Your task to perform on an android device: Clear the cart on newegg. Add "asus zenbook" to the cart on newegg, then select checkout. Image 0: 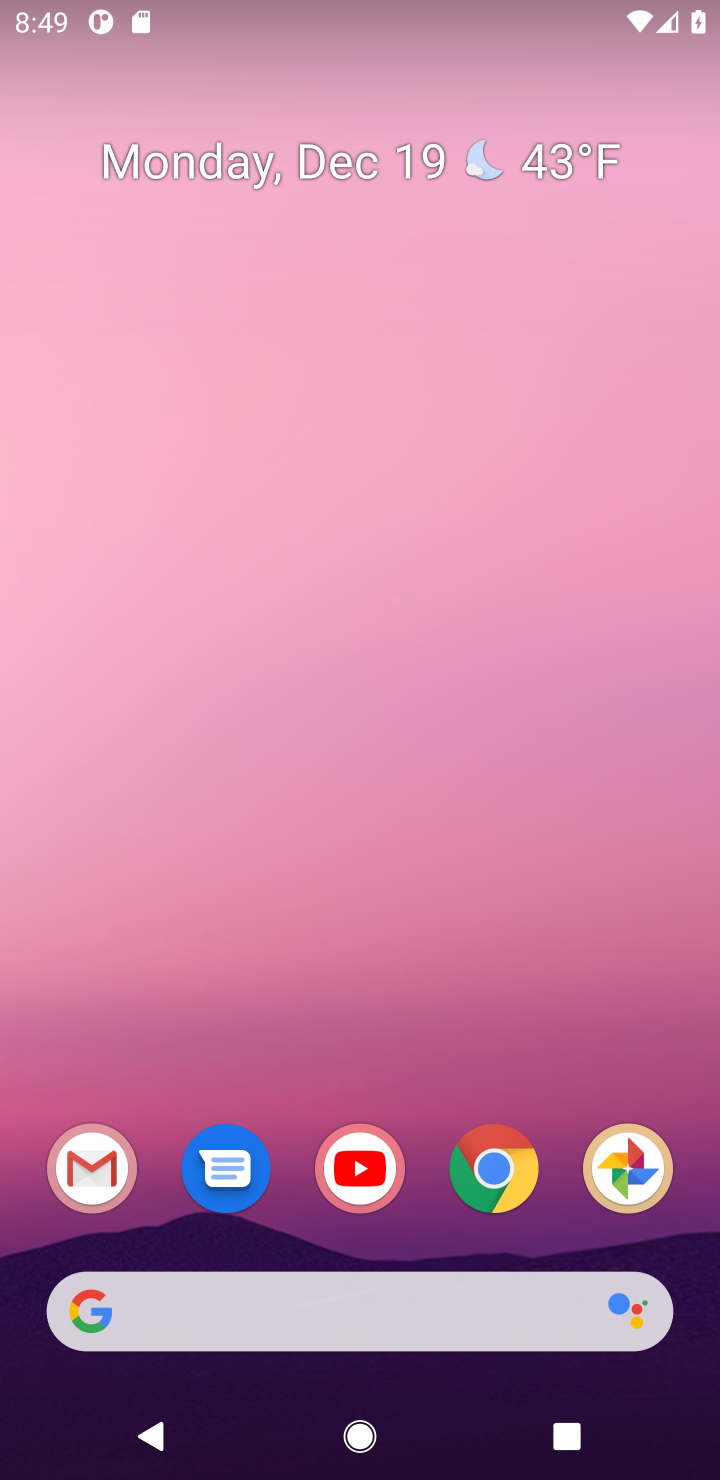
Step 0: click (504, 1185)
Your task to perform on an android device: Clear the cart on newegg. Add "asus zenbook" to the cart on newegg, then select checkout. Image 1: 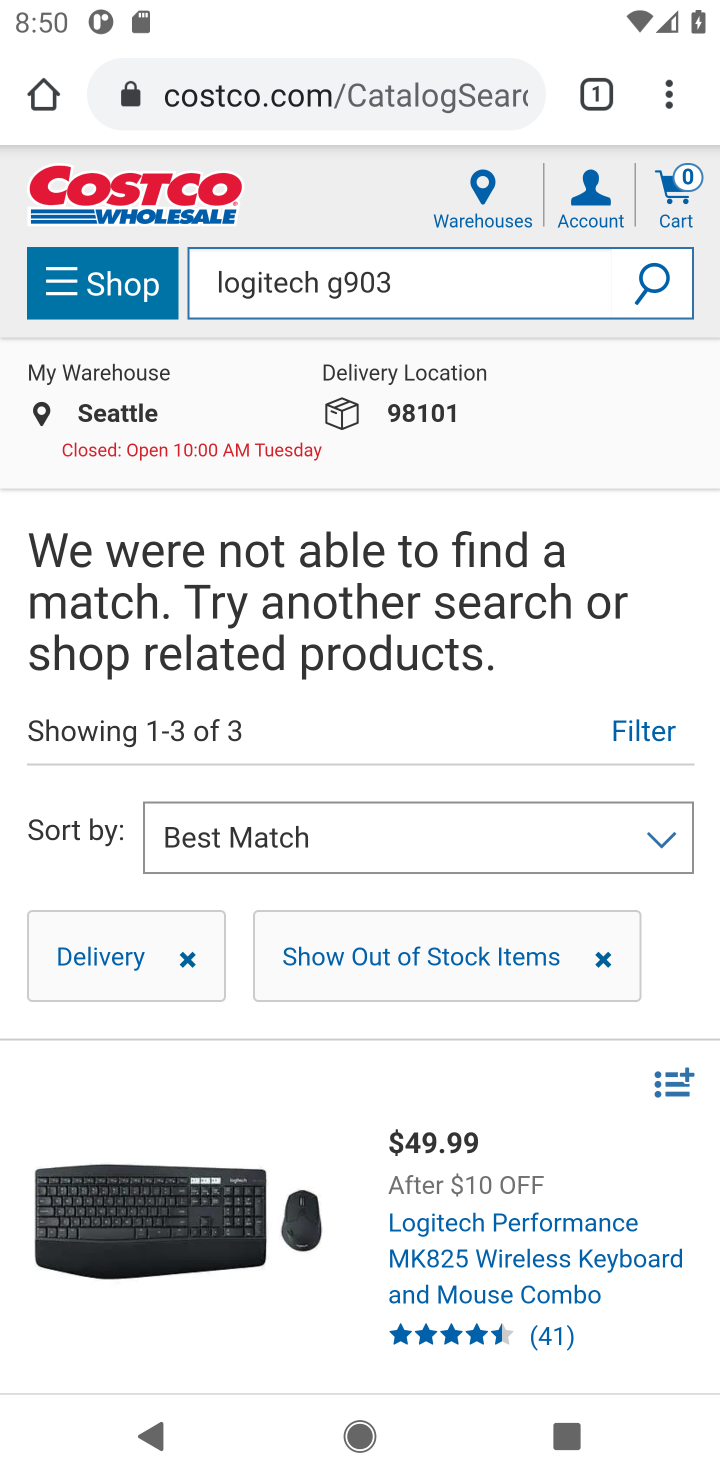
Step 1: click (316, 101)
Your task to perform on an android device: Clear the cart on newegg. Add "asus zenbook" to the cart on newegg, then select checkout. Image 2: 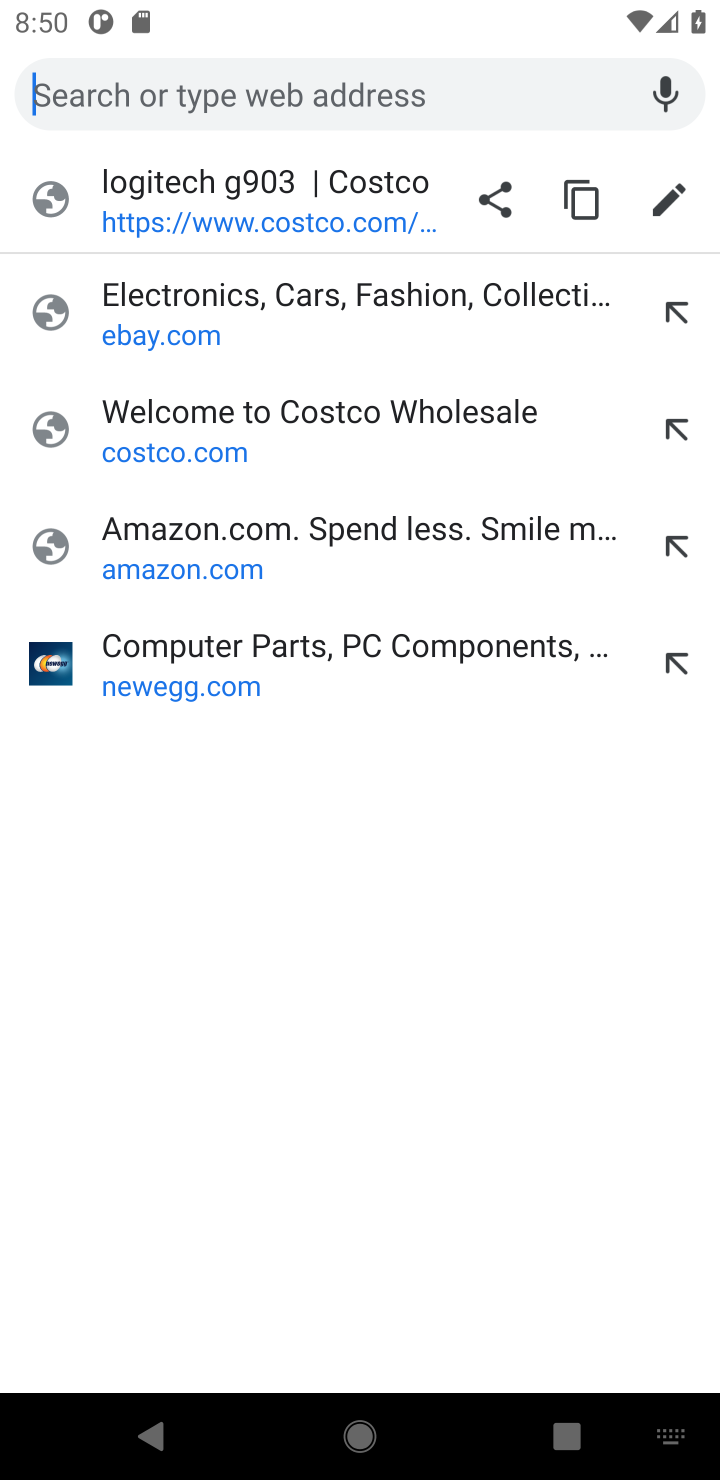
Step 2: click (147, 683)
Your task to perform on an android device: Clear the cart on newegg. Add "asus zenbook" to the cart on newegg, then select checkout. Image 3: 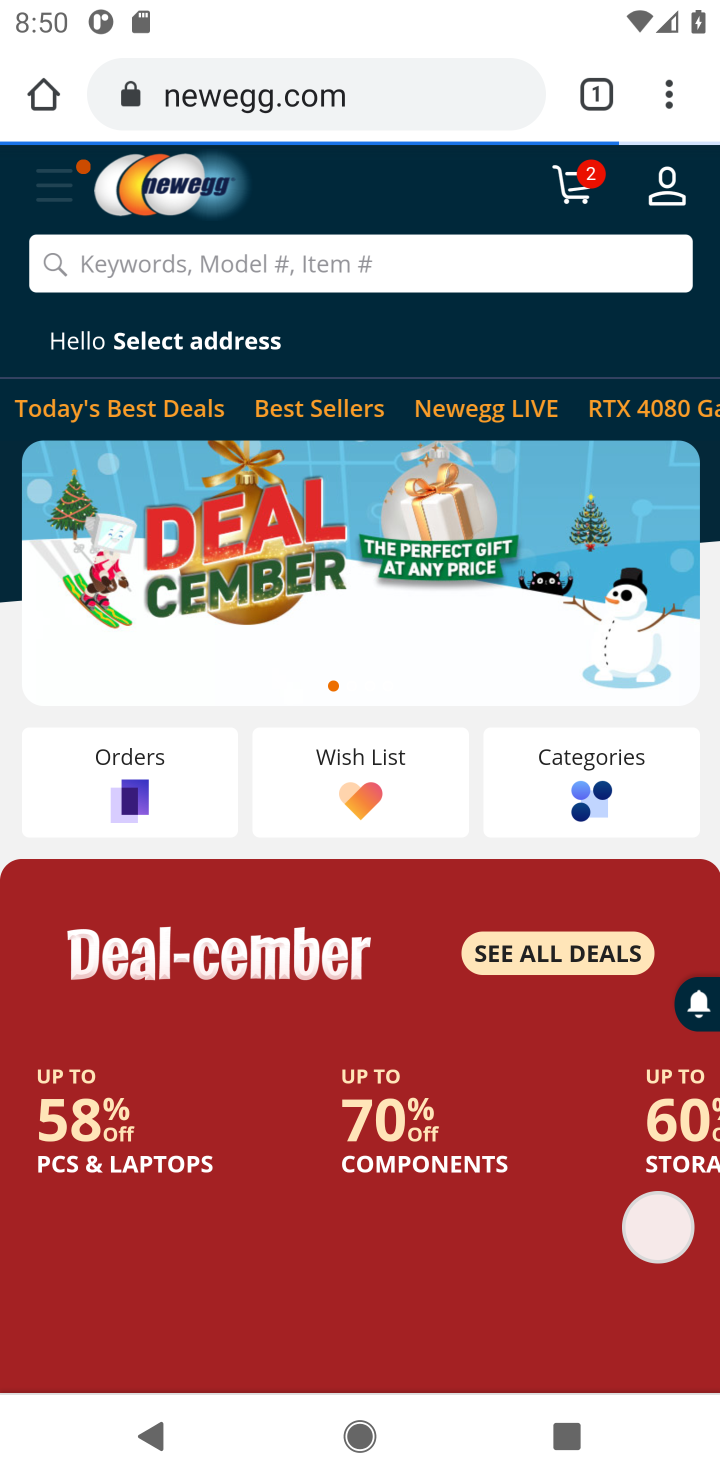
Step 3: click (570, 196)
Your task to perform on an android device: Clear the cart on newegg. Add "asus zenbook" to the cart on newegg, then select checkout. Image 4: 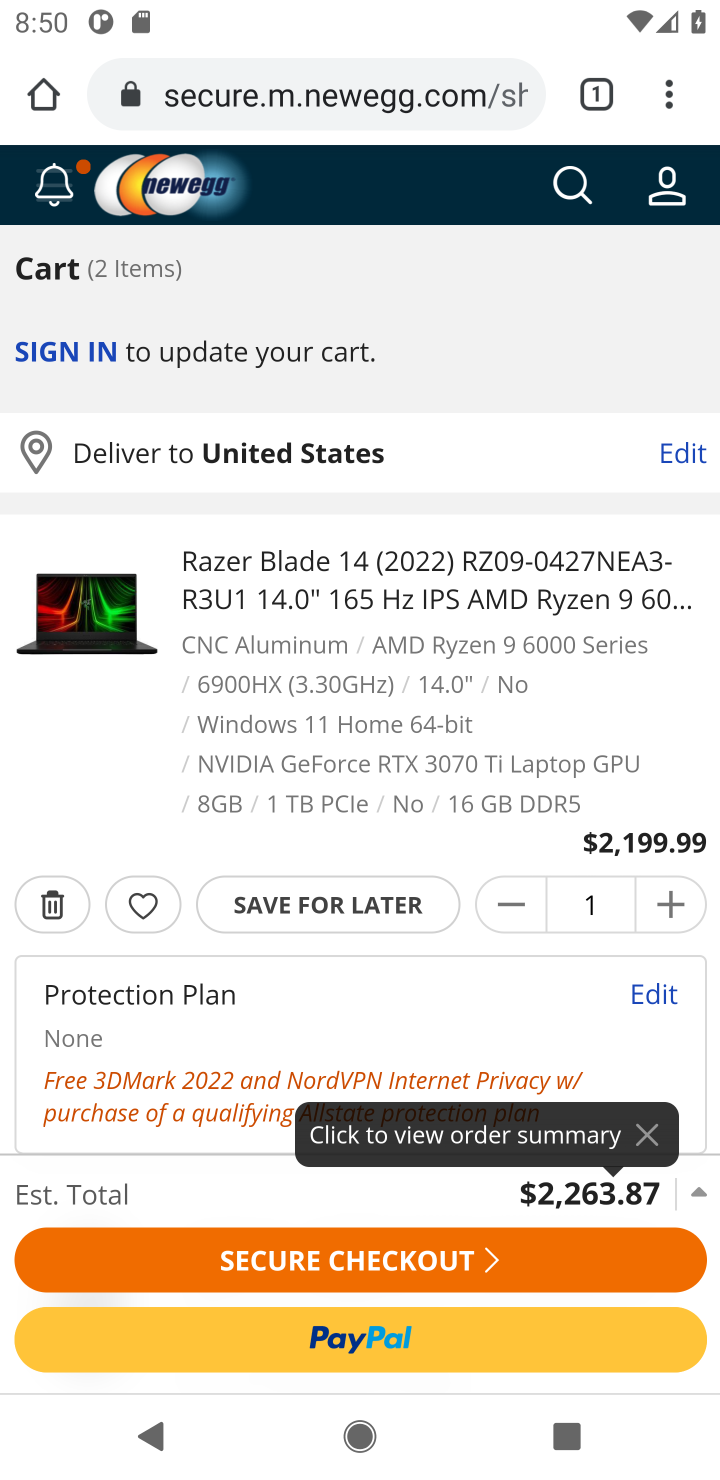
Step 4: click (48, 901)
Your task to perform on an android device: Clear the cart on newegg. Add "asus zenbook" to the cart on newegg, then select checkout. Image 5: 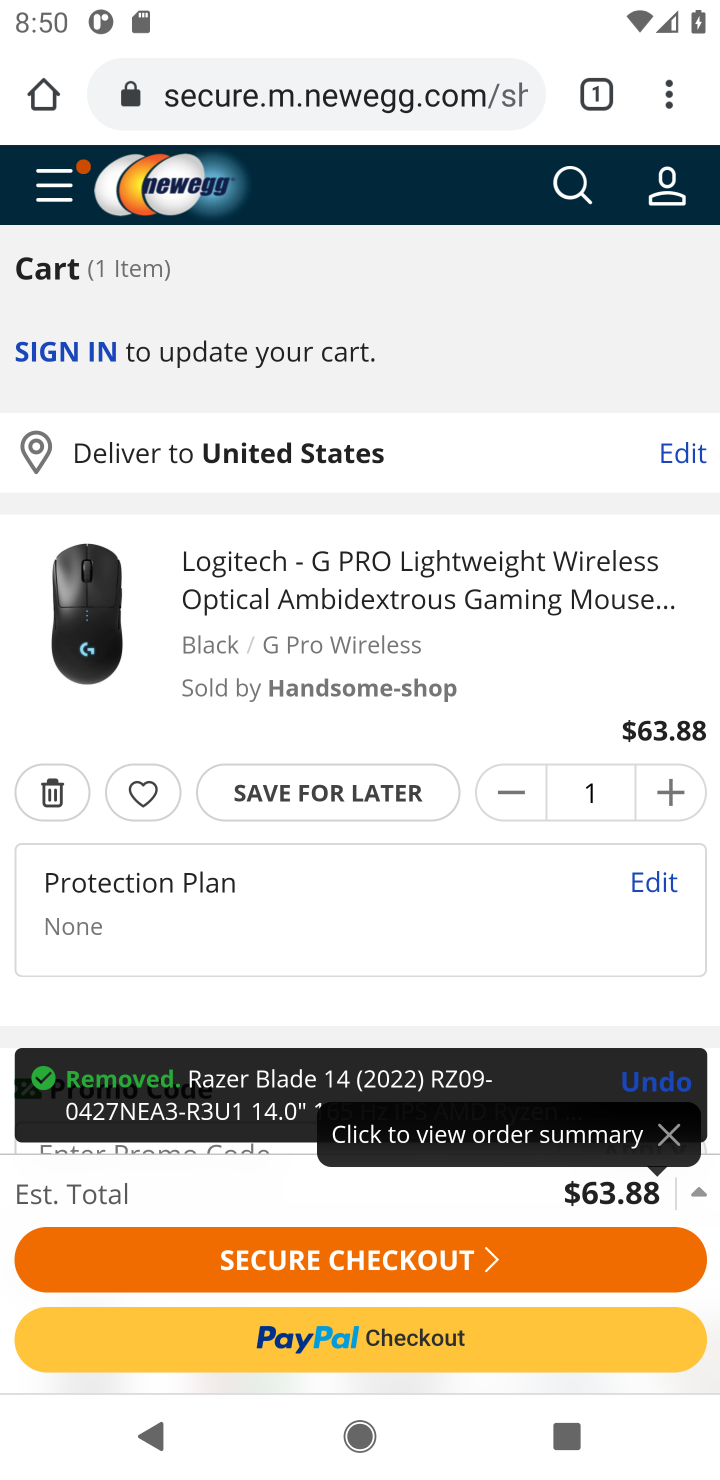
Step 5: click (55, 794)
Your task to perform on an android device: Clear the cart on newegg. Add "asus zenbook" to the cart on newegg, then select checkout. Image 6: 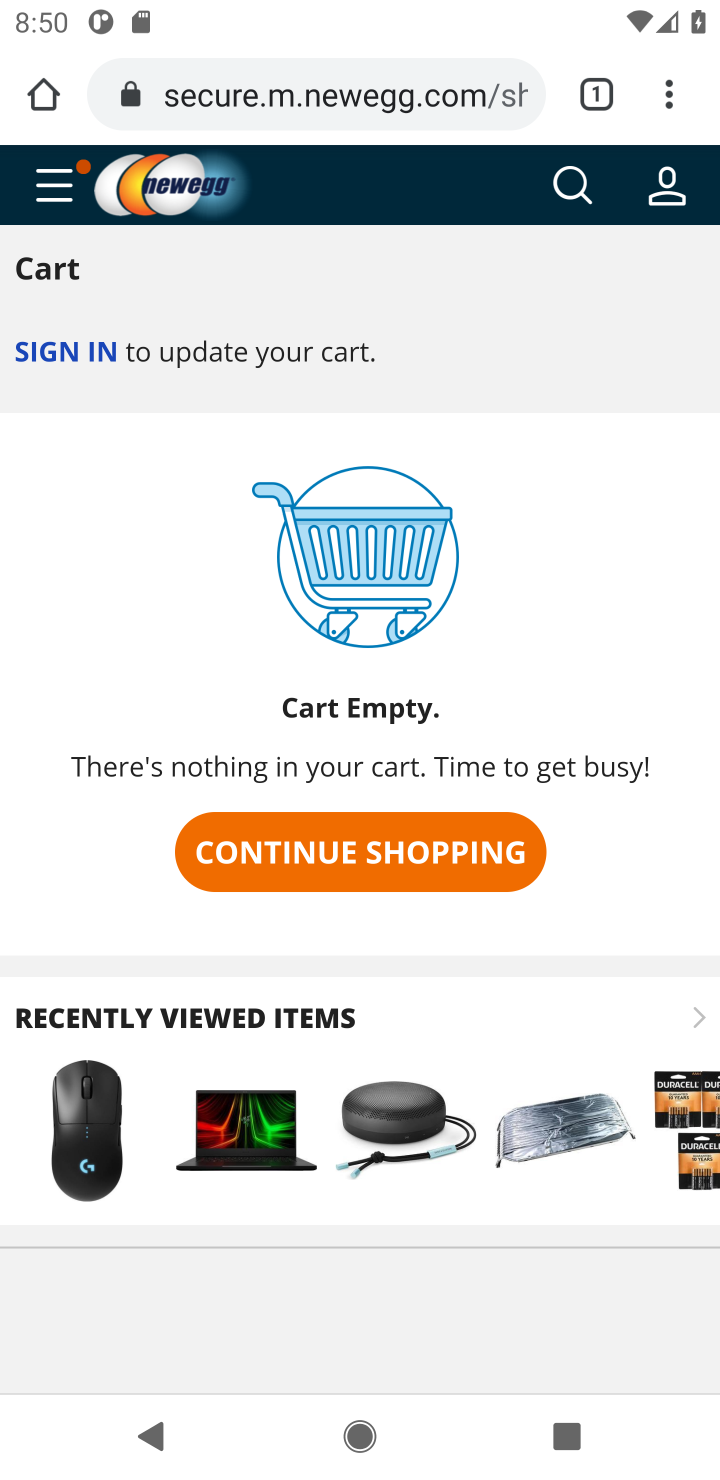
Step 6: click (566, 188)
Your task to perform on an android device: Clear the cart on newegg. Add "asus zenbook" to the cart on newegg, then select checkout. Image 7: 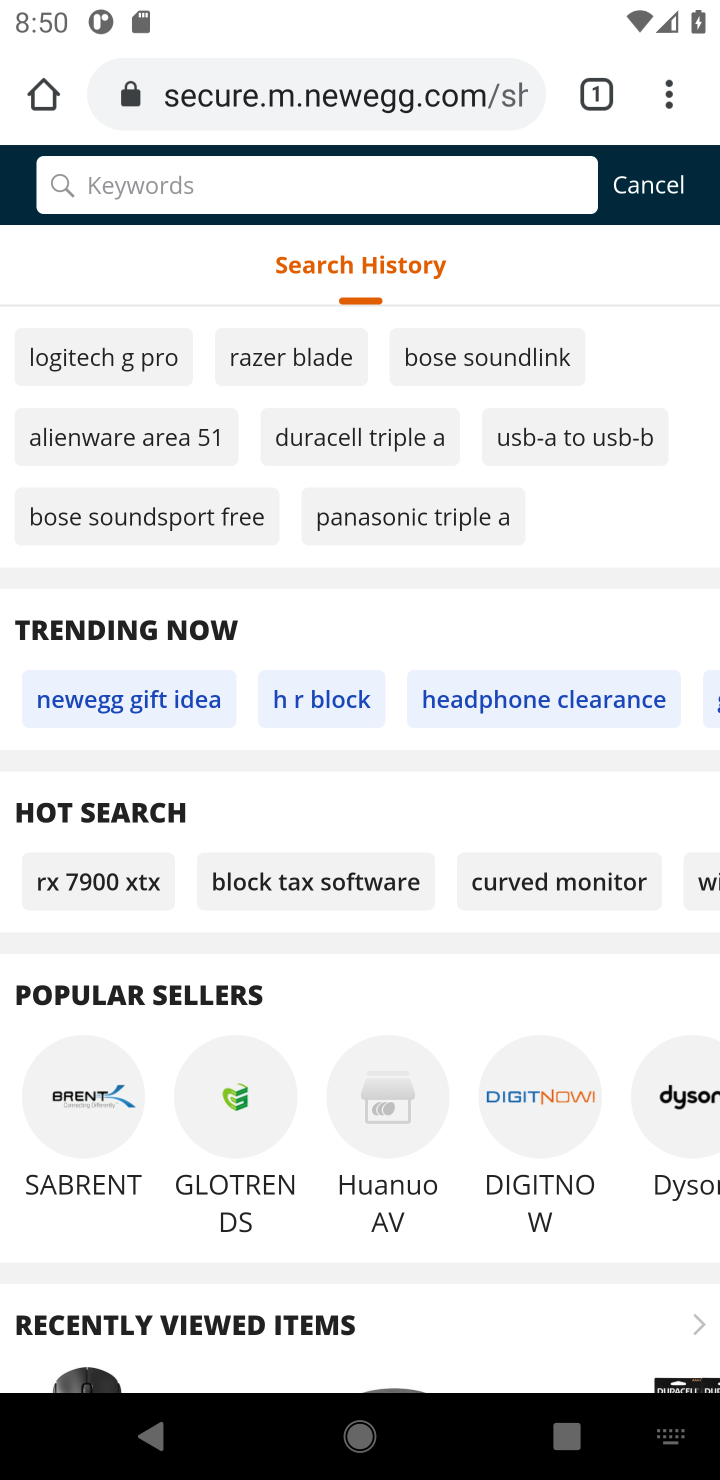
Step 7: type "asus zenbook"
Your task to perform on an android device: Clear the cart on newegg. Add "asus zenbook" to the cart on newegg, then select checkout. Image 8: 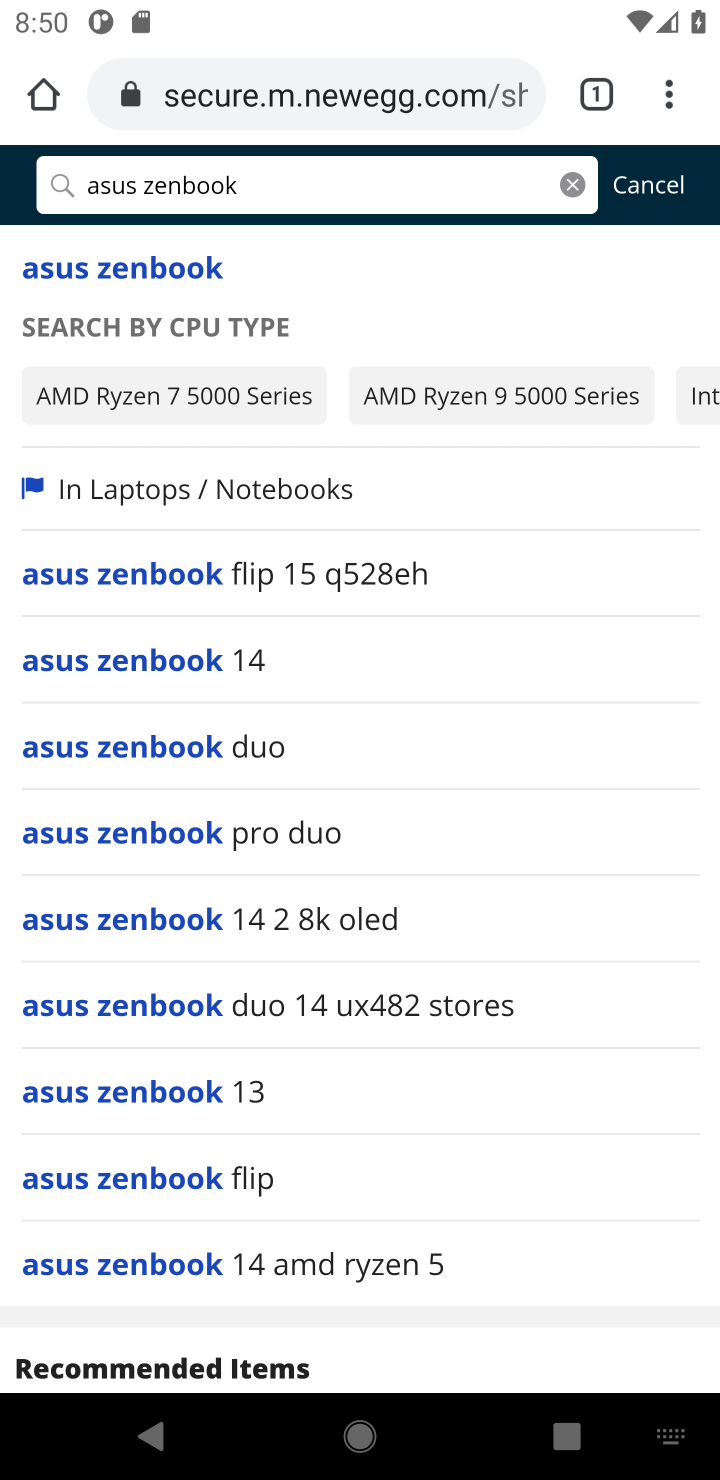
Step 8: click (179, 281)
Your task to perform on an android device: Clear the cart on newegg. Add "asus zenbook" to the cart on newegg, then select checkout. Image 9: 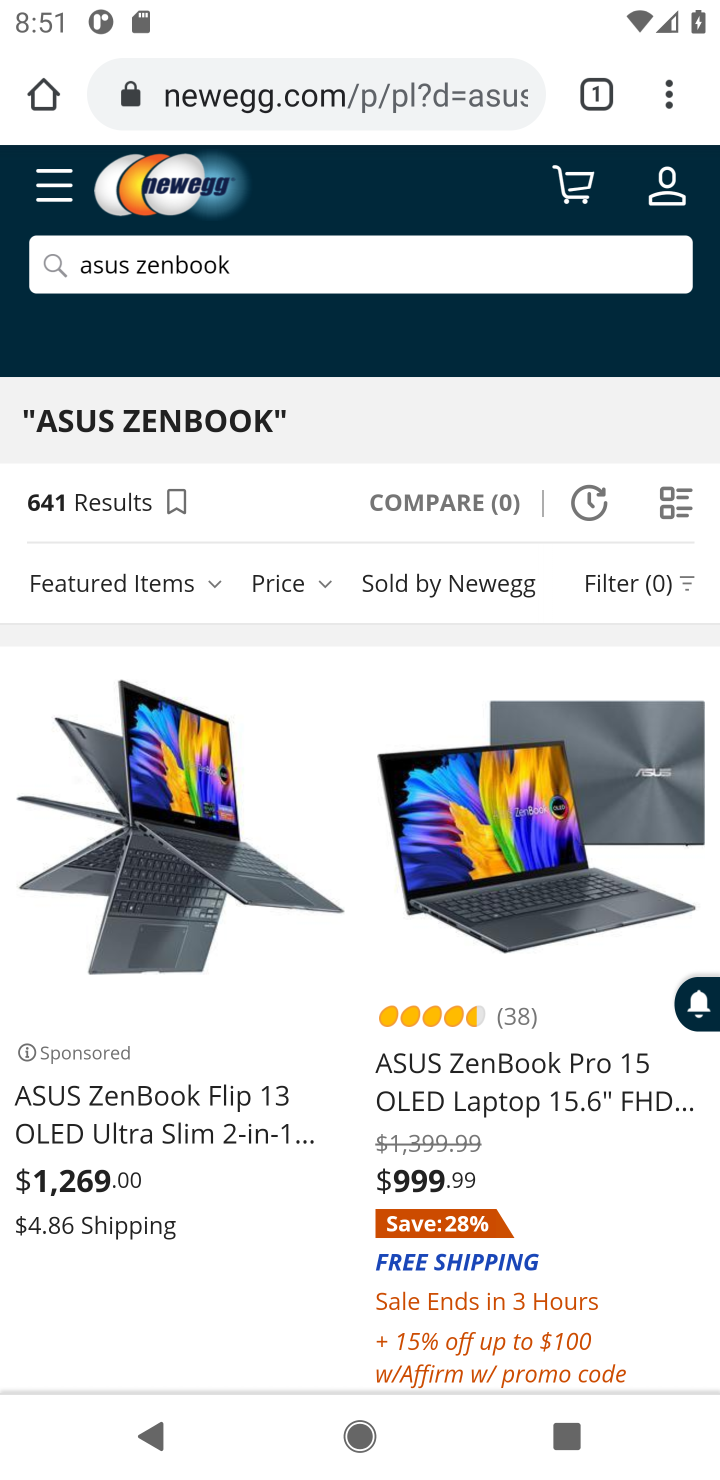
Step 9: drag from (240, 906) to (270, 638)
Your task to perform on an android device: Clear the cart on newegg. Add "asus zenbook" to the cart on newegg, then select checkout. Image 10: 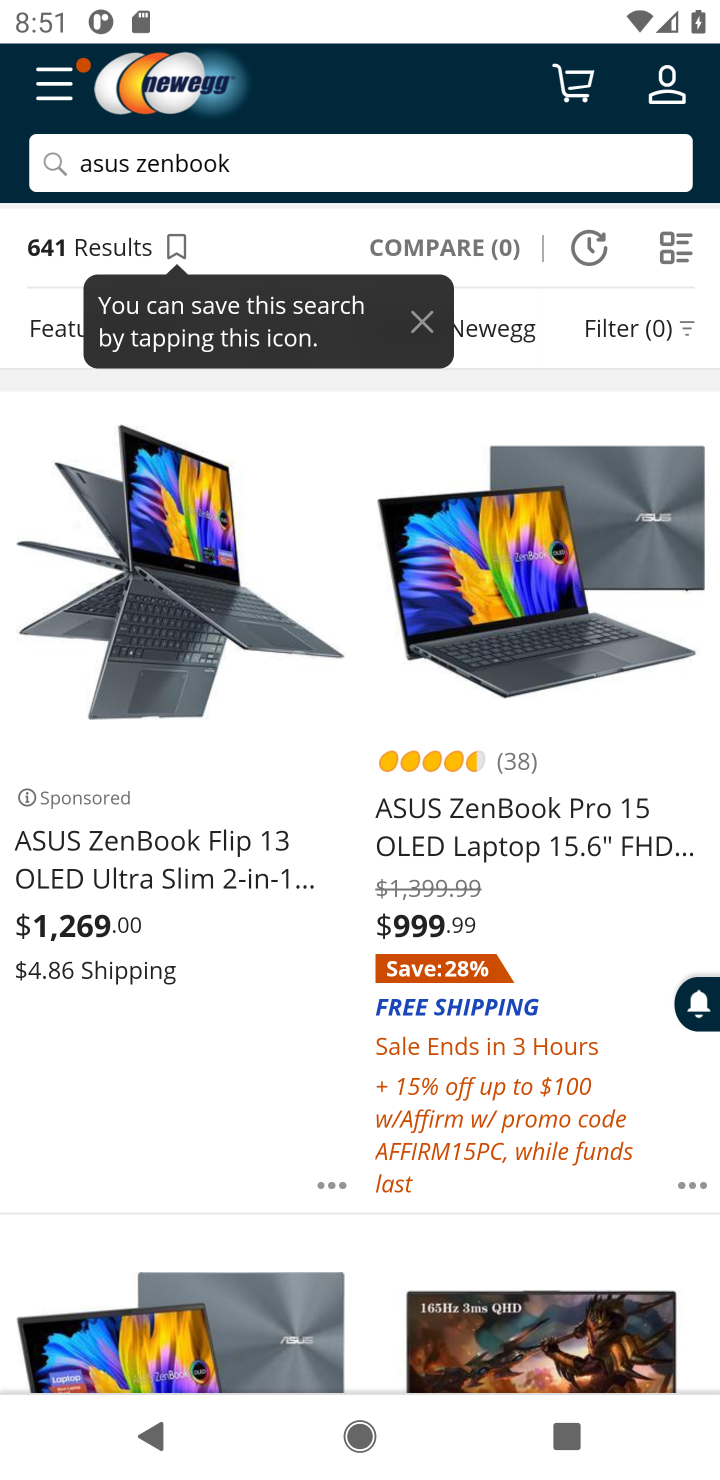
Step 10: click (123, 875)
Your task to perform on an android device: Clear the cart on newegg. Add "asus zenbook" to the cart on newegg, then select checkout. Image 11: 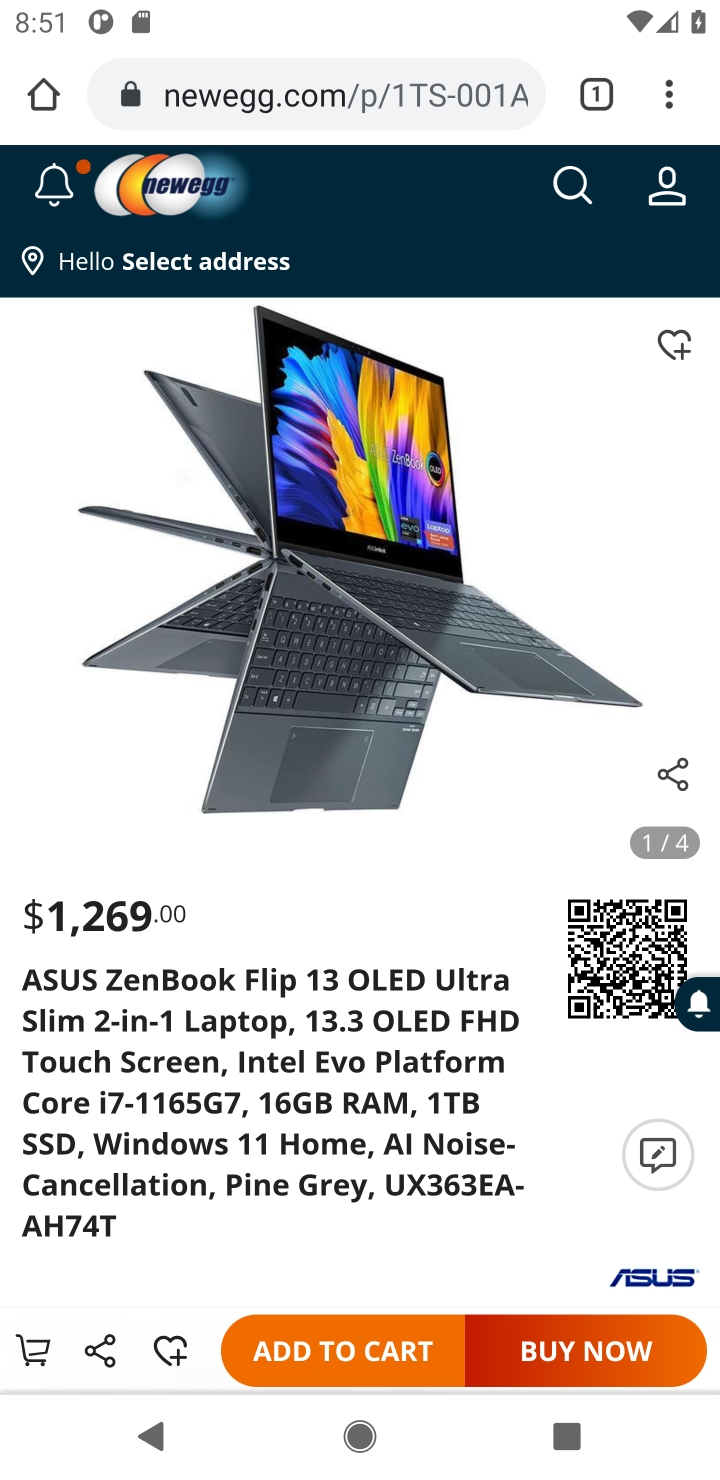
Step 11: click (336, 1345)
Your task to perform on an android device: Clear the cart on newegg. Add "asus zenbook" to the cart on newegg, then select checkout. Image 12: 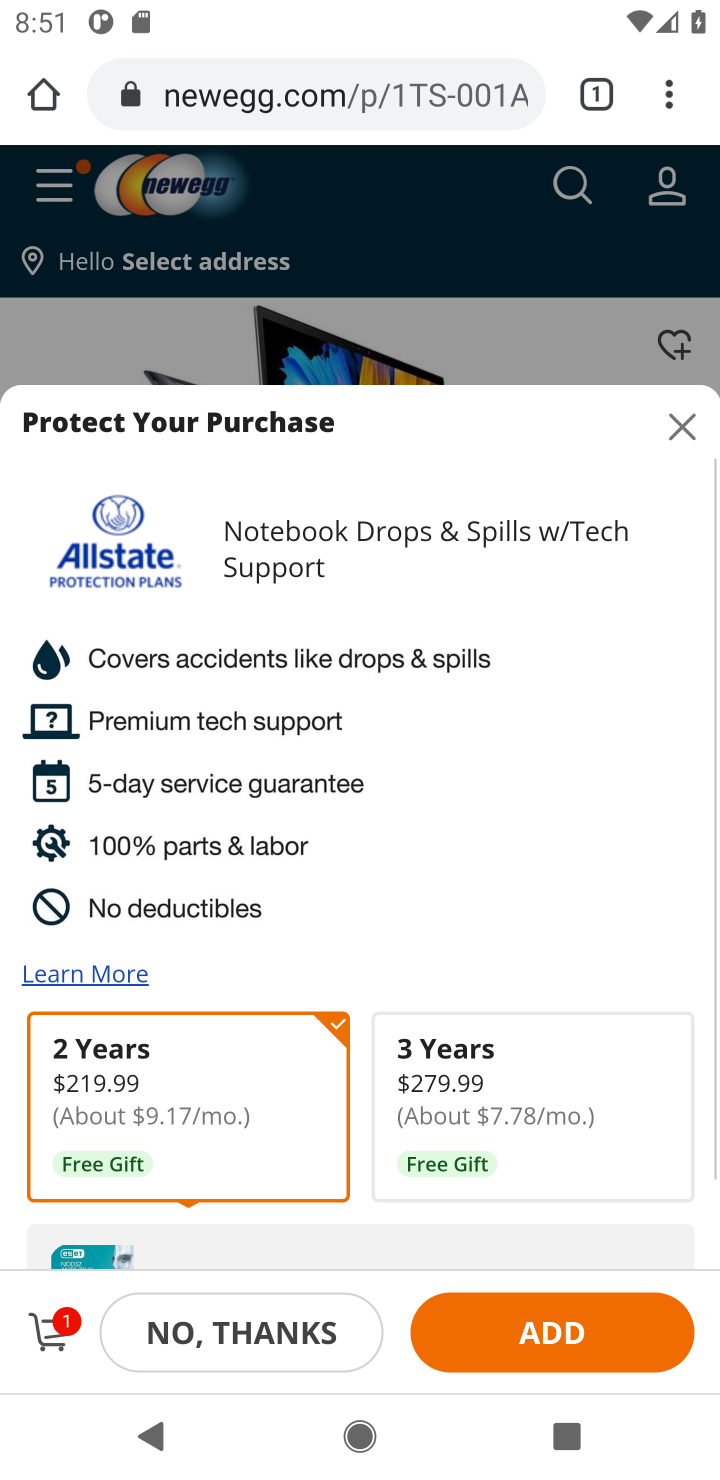
Step 12: click (50, 1327)
Your task to perform on an android device: Clear the cart on newegg. Add "asus zenbook" to the cart on newegg, then select checkout. Image 13: 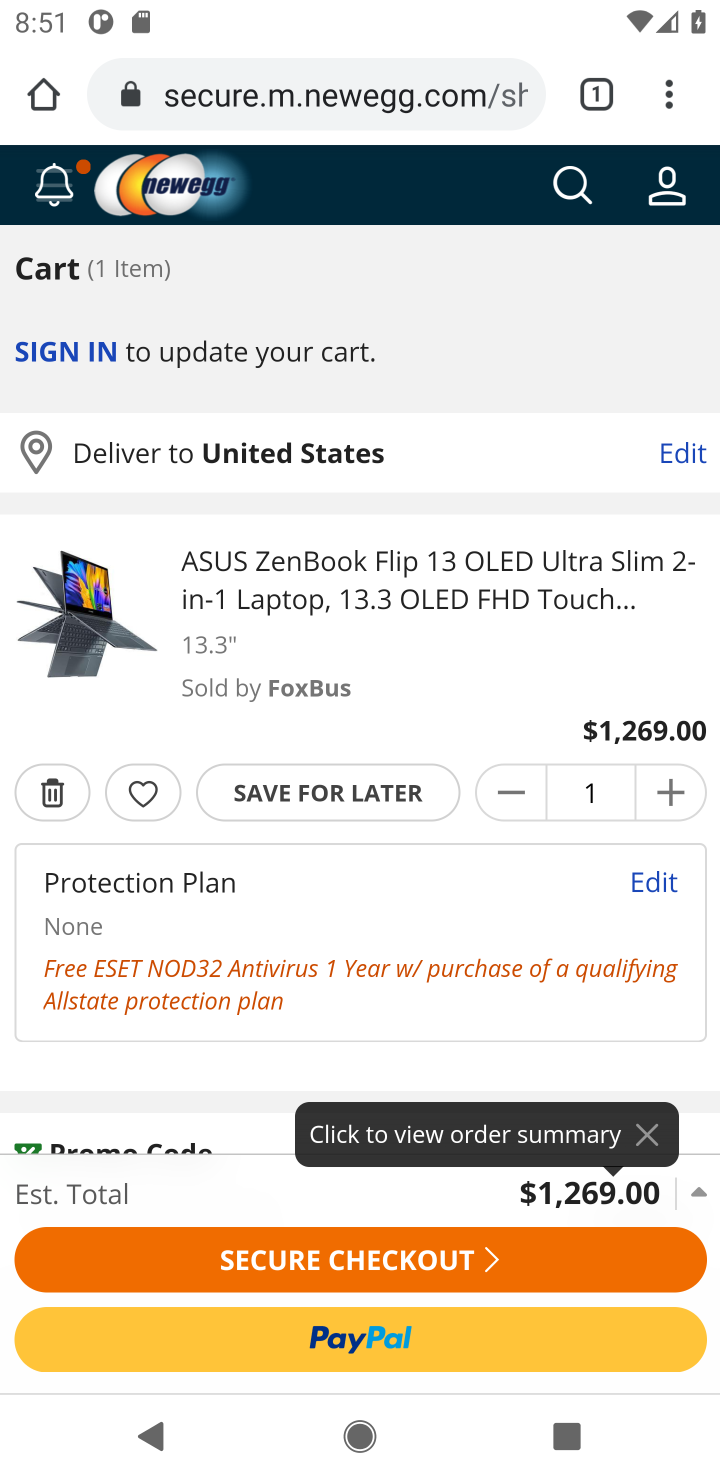
Step 13: click (294, 1274)
Your task to perform on an android device: Clear the cart on newegg. Add "asus zenbook" to the cart on newegg, then select checkout. Image 14: 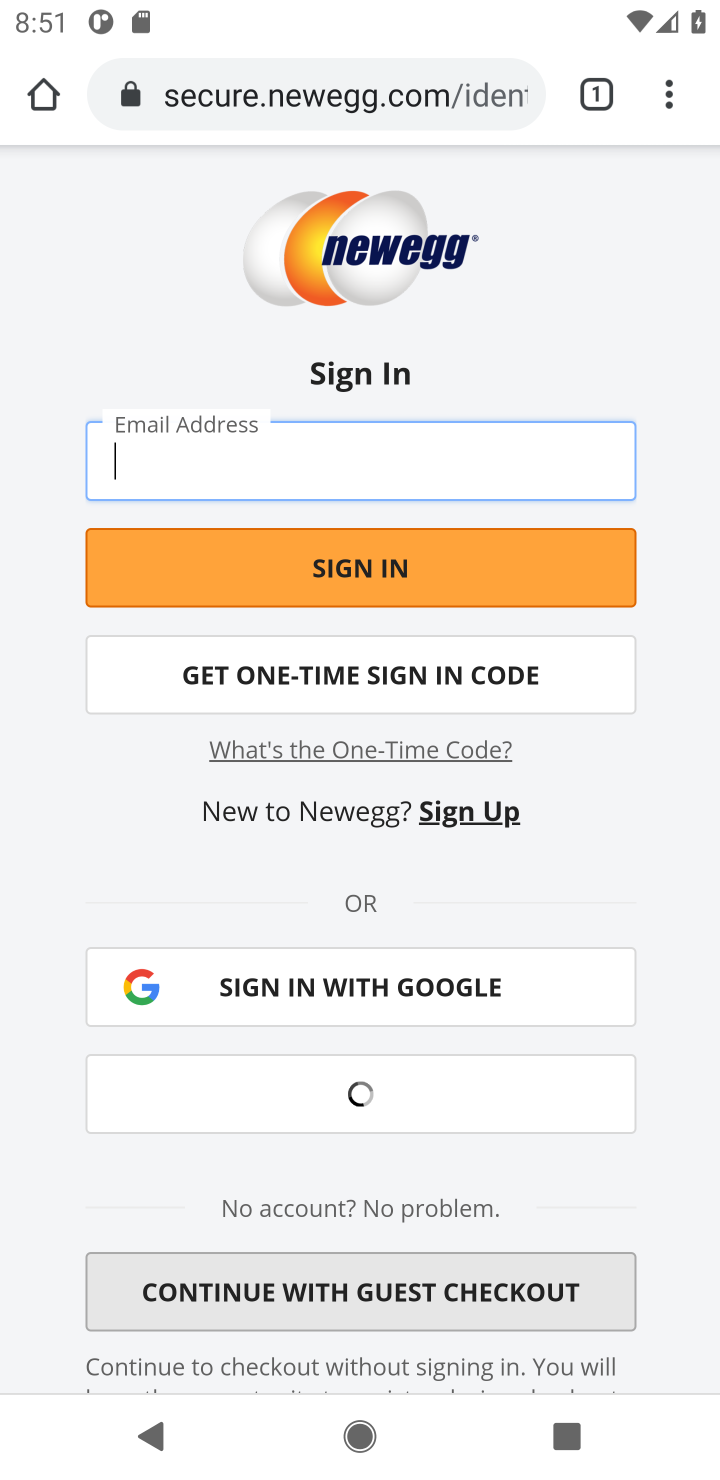
Step 14: task complete